Your task to perform on an android device: allow cookies in the chrome app Image 0: 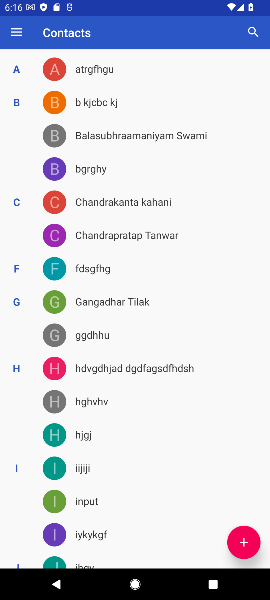
Step 0: press home button
Your task to perform on an android device: allow cookies in the chrome app Image 1: 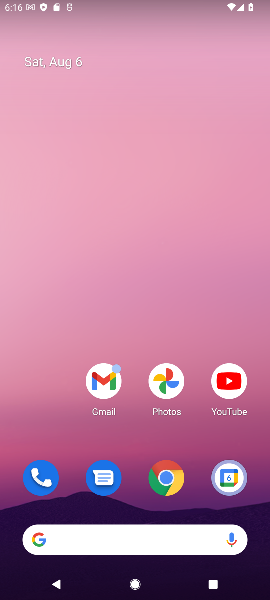
Step 1: click (164, 485)
Your task to perform on an android device: allow cookies in the chrome app Image 2: 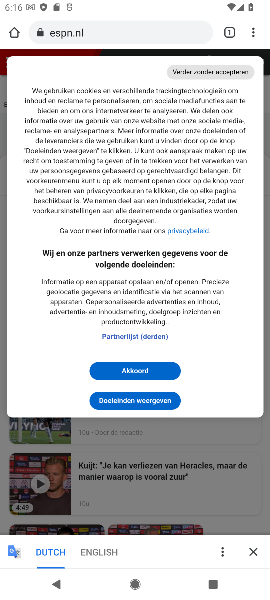
Step 2: click (252, 31)
Your task to perform on an android device: allow cookies in the chrome app Image 3: 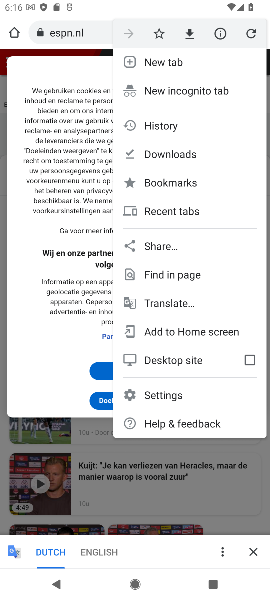
Step 3: click (163, 396)
Your task to perform on an android device: allow cookies in the chrome app Image 4: 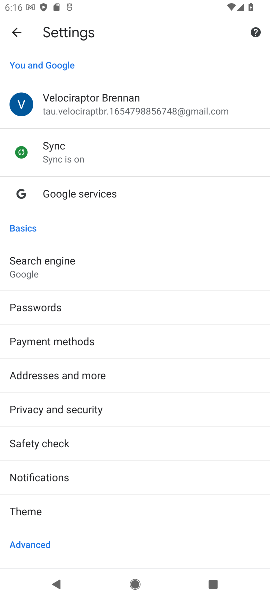
Step 4: drag from (68, 503) to (106, 273)
Your task to perform on an android device: allow cookies in the chrome app Image 5: 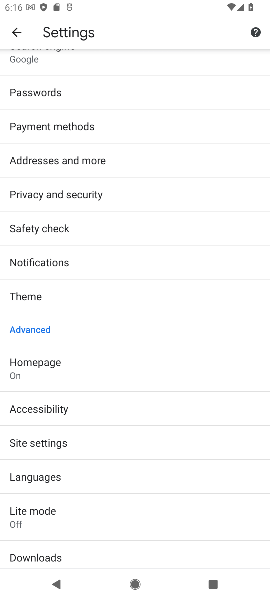
Step 5: click (36, 439)
Your task to perform on an android device: allow cookies in the chrome app Image 6: 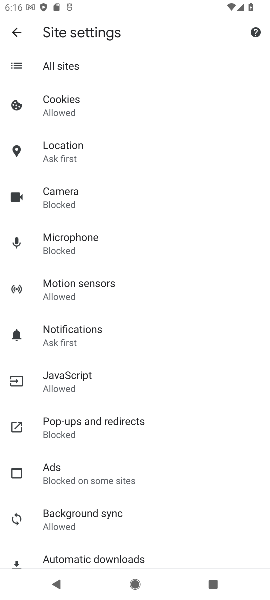
Step 6: click (64, 181)
Your task to perform on an android device: allow cookies in the chrome app Image 7: 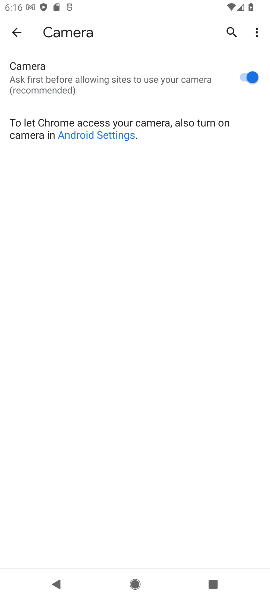
Step 7: click (22, 35)
Your task to perform on an android device: allow cookies in the chrome app Image 8: 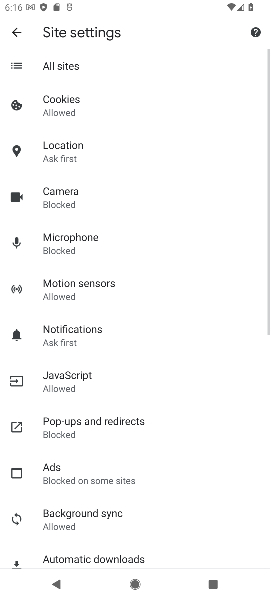
Step 8: click (70, 106)
Your task to perform on an android device: allow cookies in the chrome app Image 9: 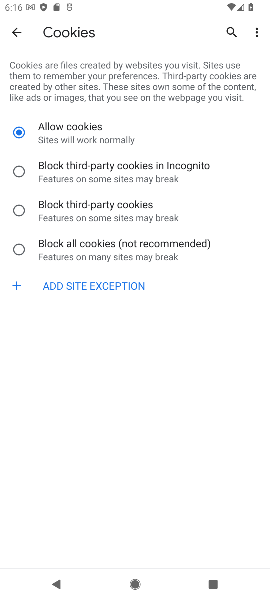
Step 9: task complete